Your task to perform on an android device: Open Google Maps and go to "Timeline" Image 0: 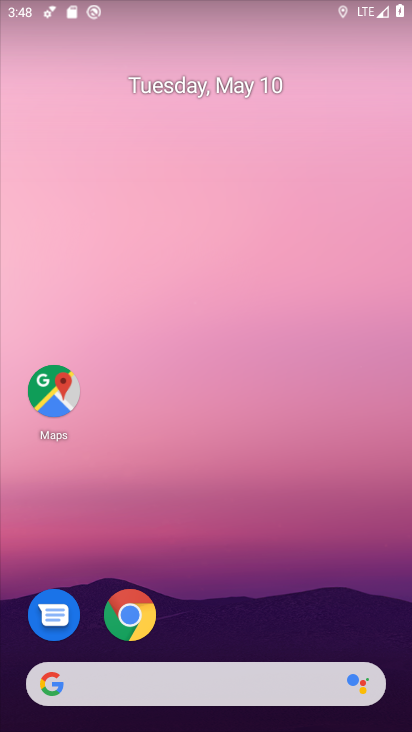
Step 0: drag from (249, 595) to (130, 0)
Your task to perform on an android device: Open Google Maps and go to "Timeline" Image 1: 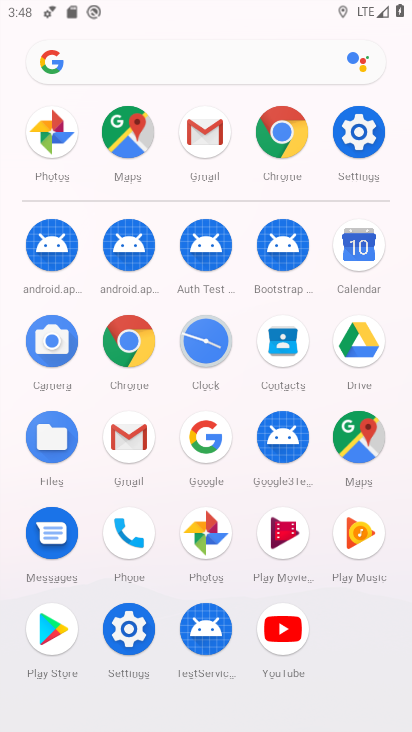
Step 1: click (354, 452)
Your task to perform on an android device: Open Google Maps and go to "Timeline" Image 2: 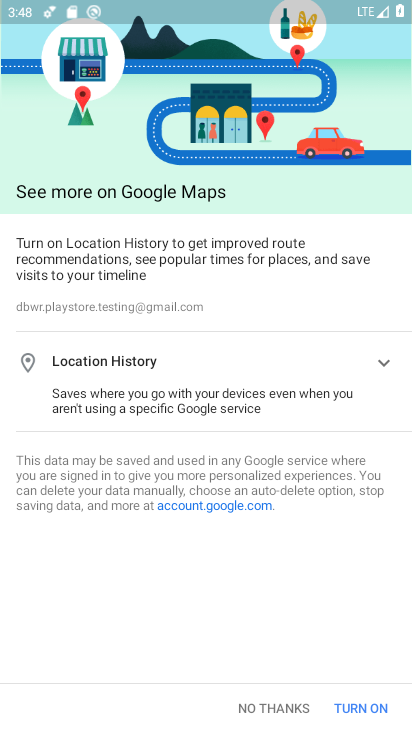
Step 2: click (277, 706)
Your task to perform on an android device: Open Google Maps and go to "Timeline" Image 3: 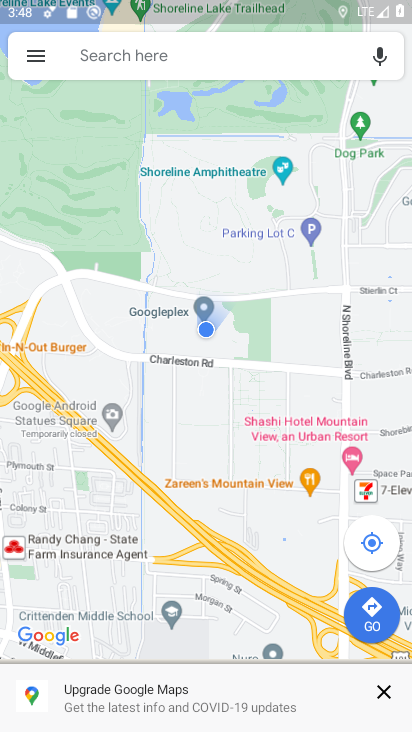
Step 3: click (40, 51)
Your task to perform on an android device: Open Google Maps and go to "Timeline" Image 4: 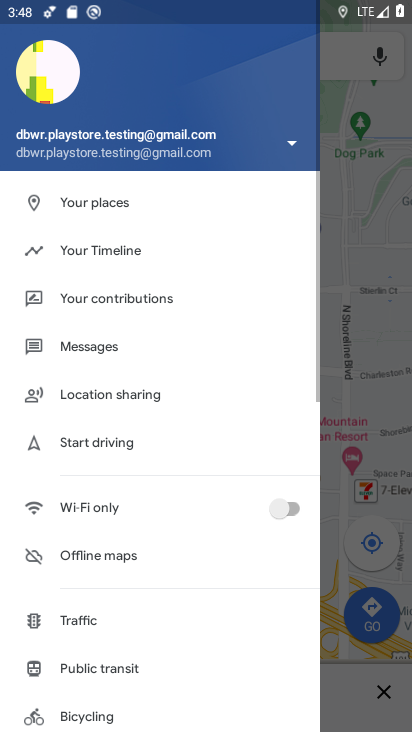
Step 4: click (124, 247)
Your task to perform on an android device: Open Google Maps and go to "Timeline" Image 5: 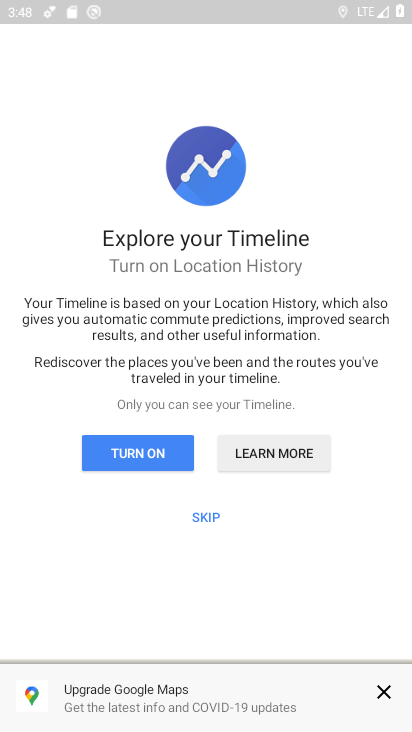
Step 5: click (209, 515)
Your task to perform on an android device: Open Google Maps and go to "Timeline" Image 6: 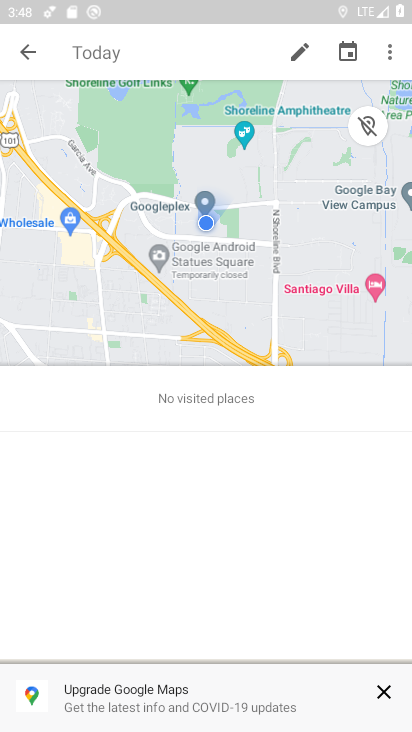
Step 6: task complete